Your task to perform on an android device: delete location history Image 0: 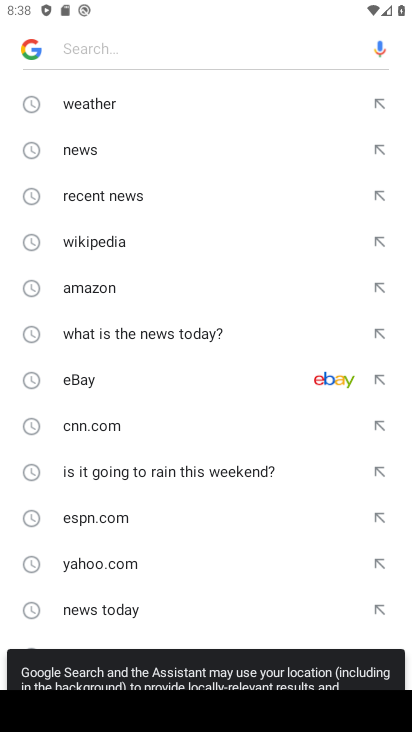
Step 0: press home button
Your task to perform on an android device: delete location history Image 1: 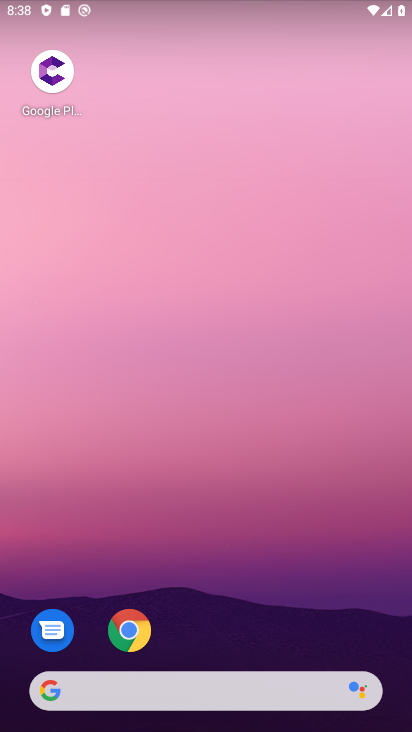
Step 1: drag from (360, 570) to (349, 183)
Your task to perform on an android device: delete location history Image 2: 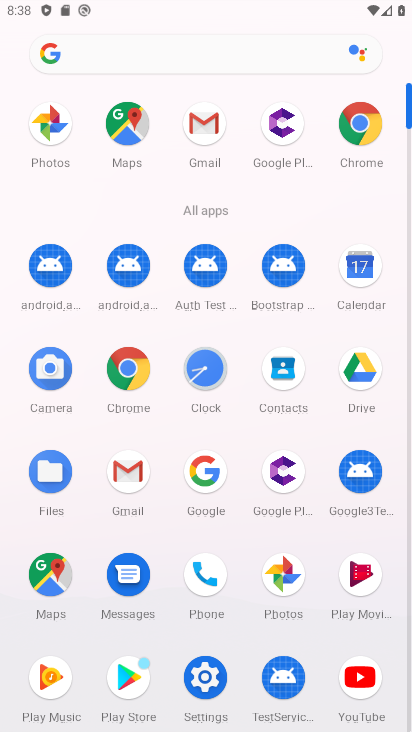
Step 2: click (50, 582)
Your task to perform on an android device: delete location history Image 3: 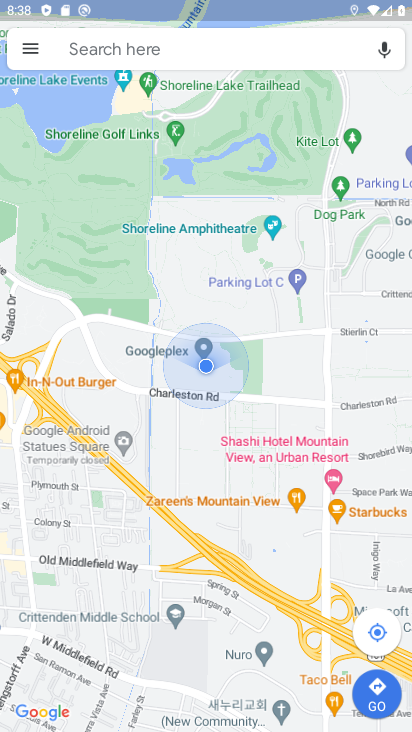
Step 3: click (32, 40)
Your task to perform on an android device: delete location history Image 4: 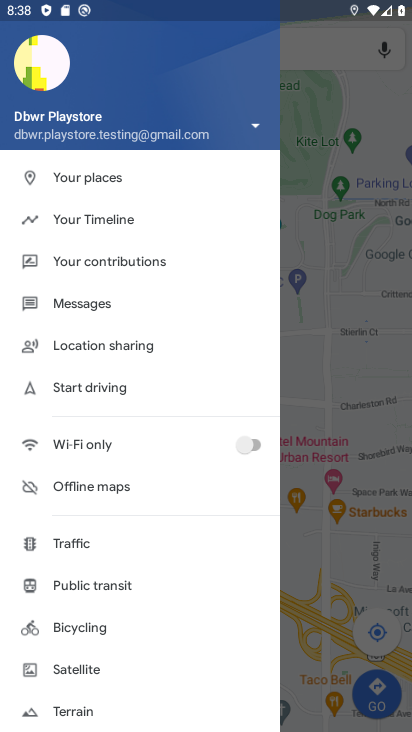
Step 4: click (123, 208)
Your task to perform on an android device: delete location history Image 5: 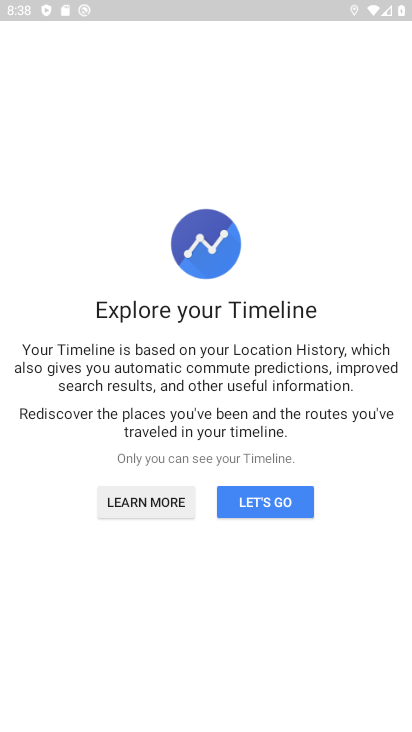
Step 5: click (251, 500)
Your task to perform on an android device: delete location history Image 6: 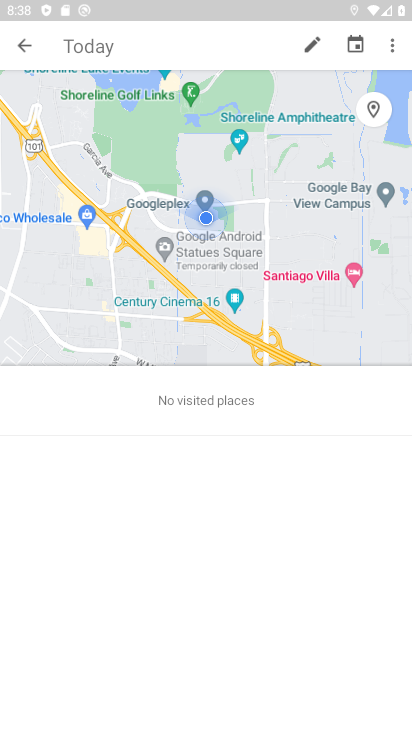
Step 6: click (396, 48)
Your task to perform on an android device: delete location history Image 7: 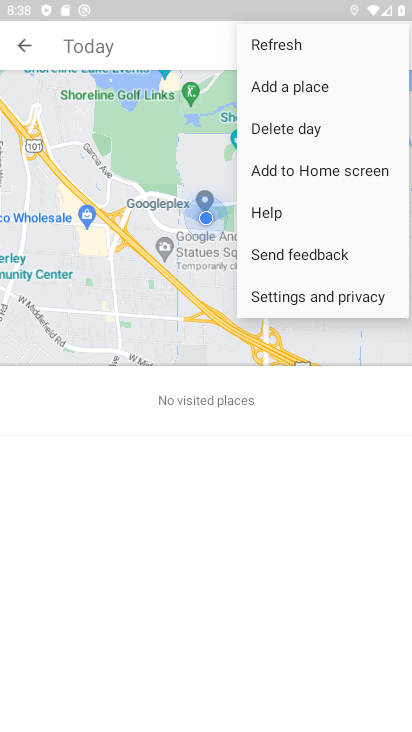
Step 7: click (349, 307)
Your task to perform on an android device: delete location history Image 8: 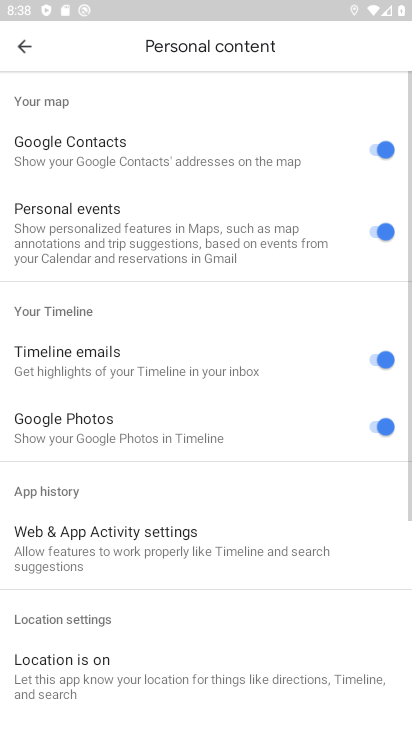
Step 8: drag from (275, 604) to (277, 494)
Your task to perform on an android device: delete location history Image 9: 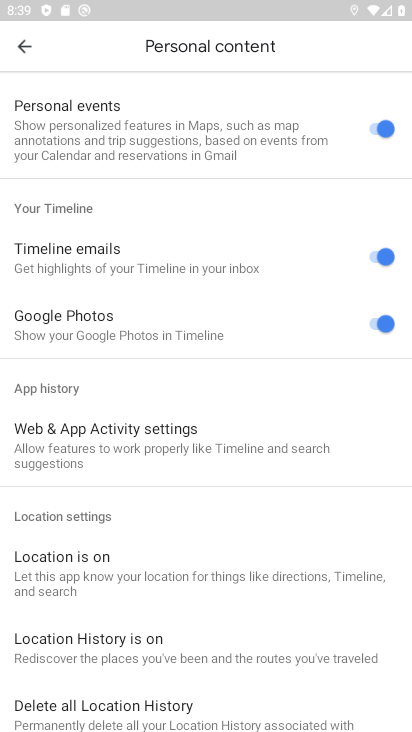
Step 9: drag from (265, 626) to (263, 533)
Your task to perform on an android device: delete location history Image 10: 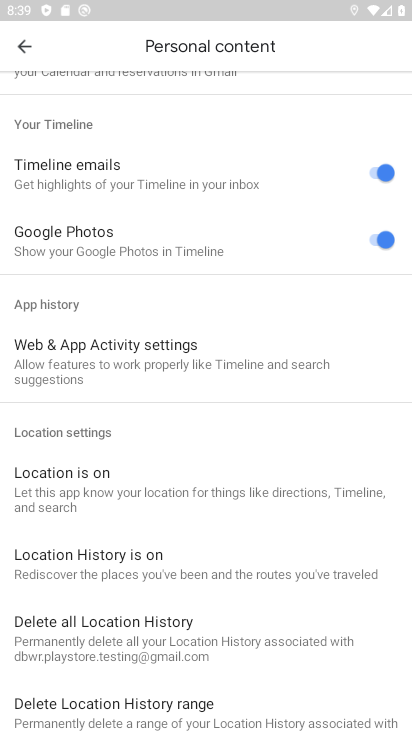
Step 10: drag from (260, 631) to (277, 526)
Your task to perform on an android device: delete location history Image 11: 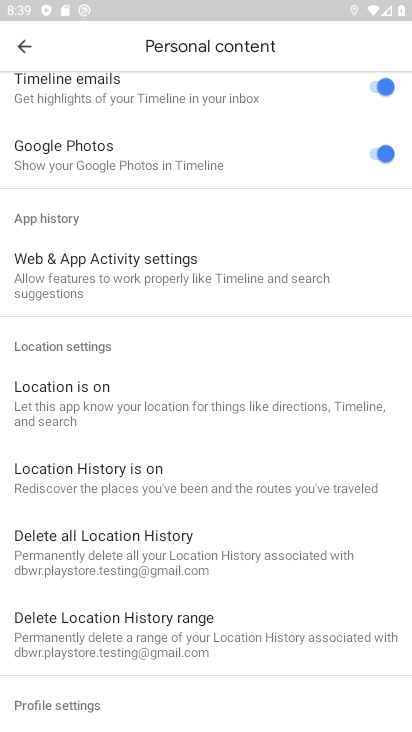
Step 11: drag from (273, 674) to (290, 568)
Your task to perform on an android device: delete location history Image 12: 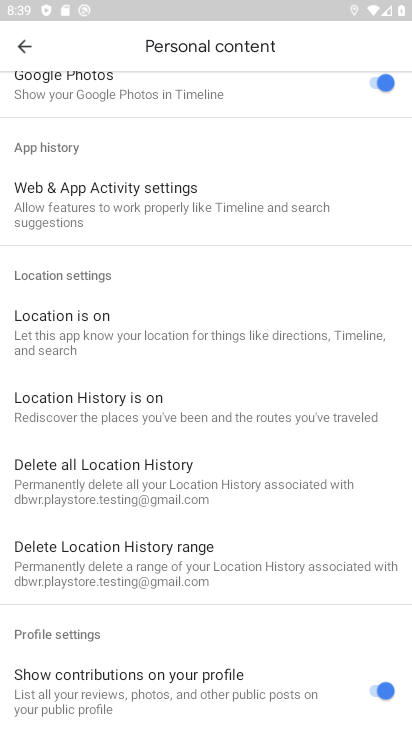
Step 12: drag from (290, 673) to (298, 556)
Your task to perform on an android device: delete location history Image 13: 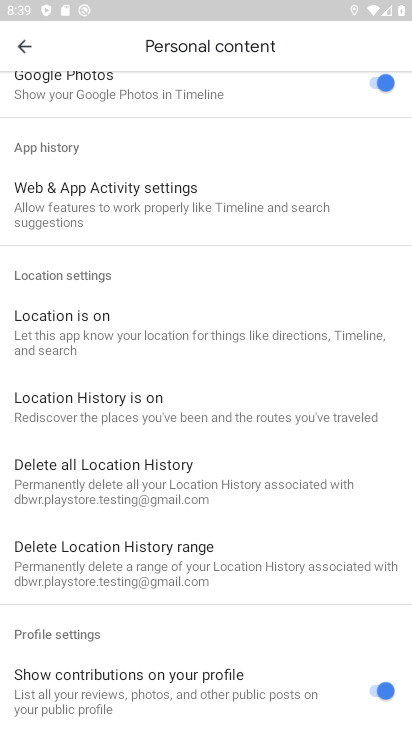
Step 13: click (224, 477)
Your task to perform on an android device: delete location history Image 14: 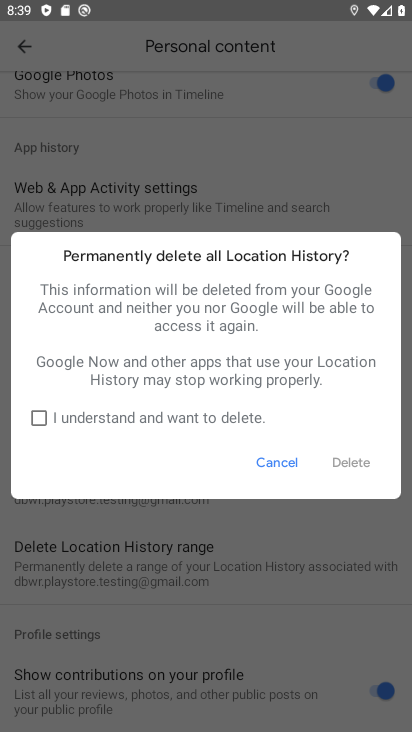
Step 14: click (58, 415)
Your task to perform on an android device: delete location history Image 15: 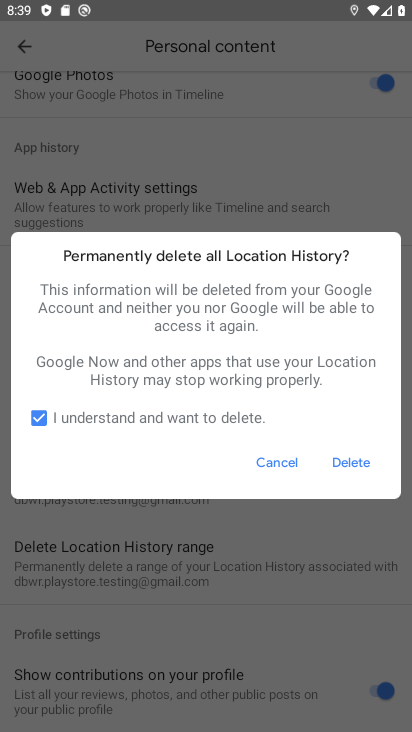
Step 15: click (359, 460)
Your task to perform on an android device: delete location history Image 16: 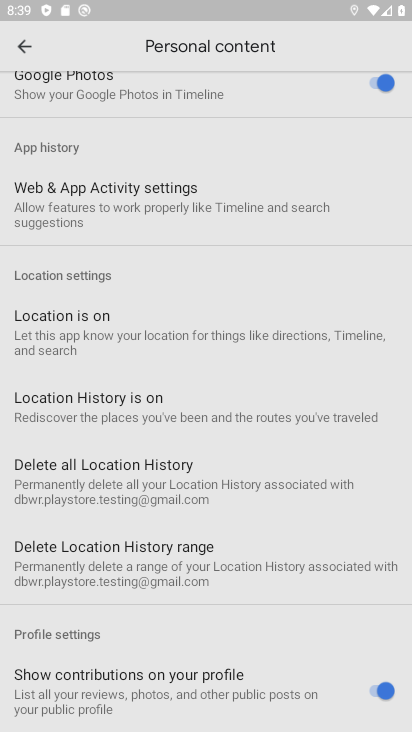
Step 16: click (351, 452)
Your task to perform on an android device: delete location history Image 17: 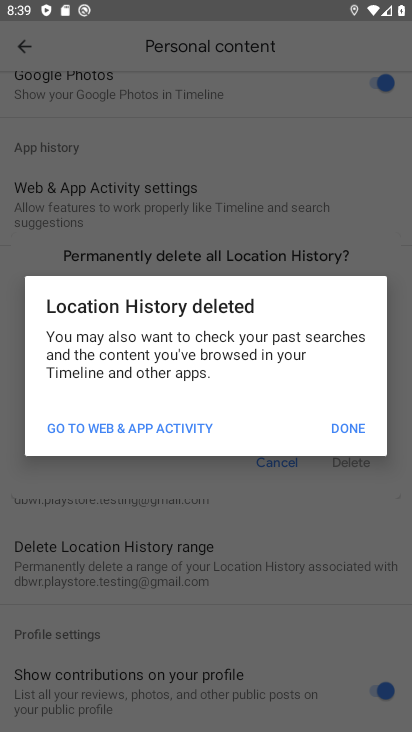
Step 17: click (355, 422)
Your task to perform on an android device: delete location history Image 18: 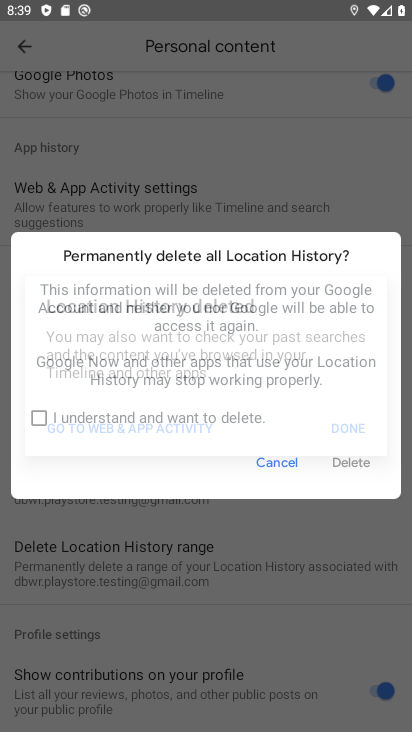
Step 18: task complete